Your task to perform on an android device: Go to Google Image 0: 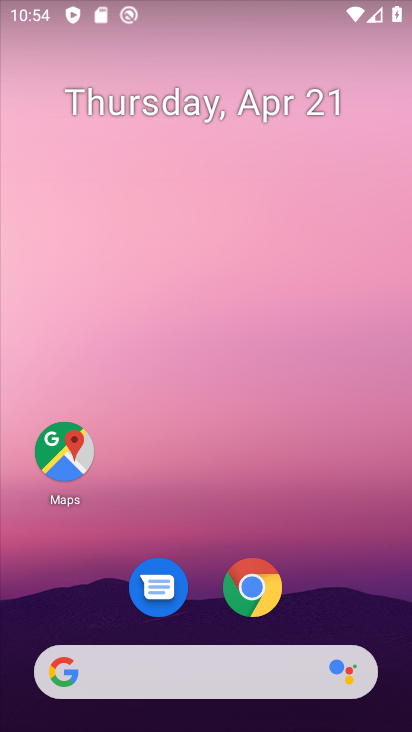
Step 0: drag from (205, 601) to (257, 114)
Your task to perform on an android device: Go to Google Image 1: 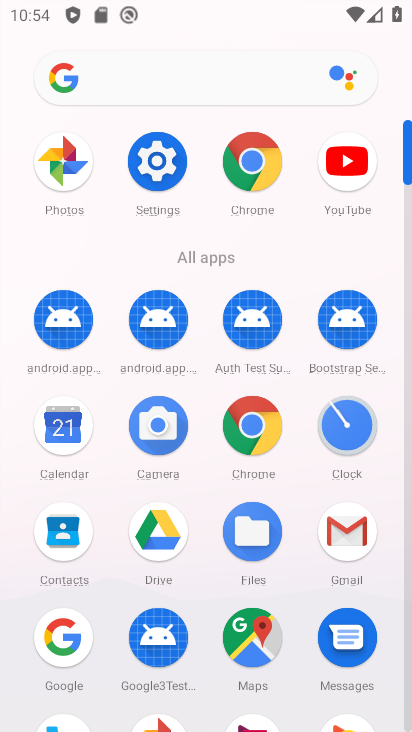
Step 1: click (53, 635)
Your task to perform on an android device: Go to Google Image 2: 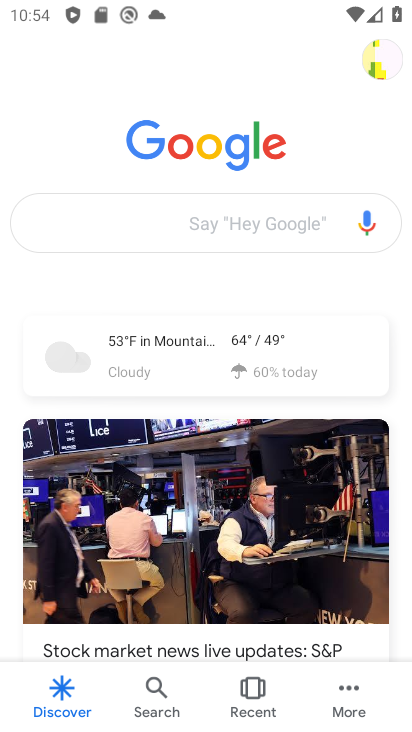
Step 2: task complete